Your task to perform on an android device: visit the assistant section in the google photos Image 0: 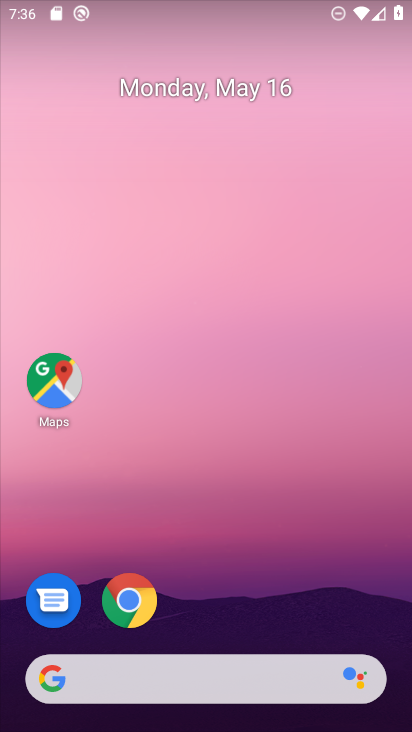
Step 0: drag from (160, 674) to (320, 132)
Your task to perform on an android device: visit the assistant section in the google photos Image 1: 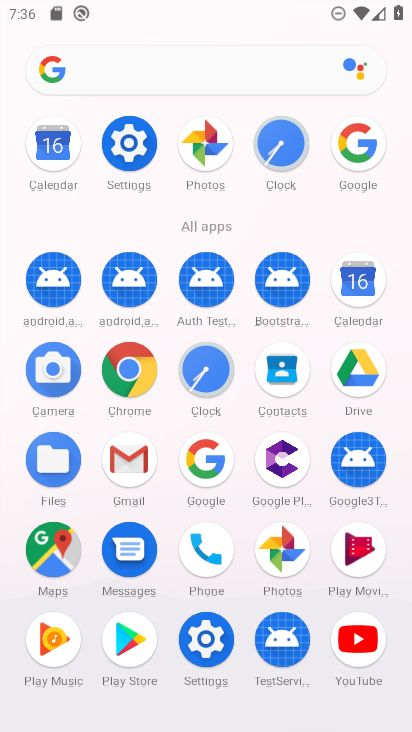
Step 1: click (279, 548)
Your task to perform on an android device: visit the assistant section in the google photos Image 2: 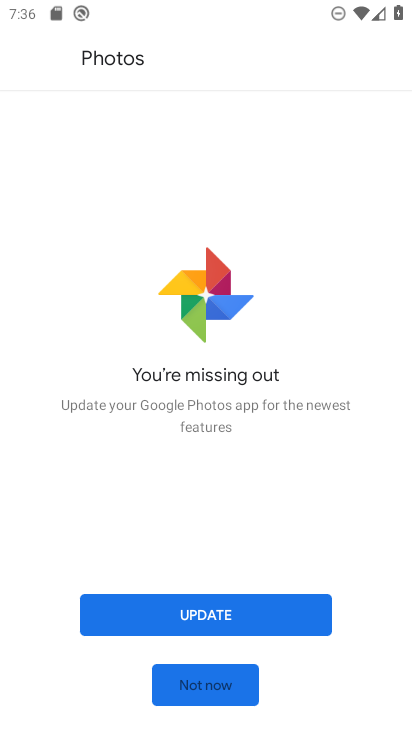
Step 2: click (233, 675)
Your task to perform on an android device: visit the assistant section in the google photos Image 3: 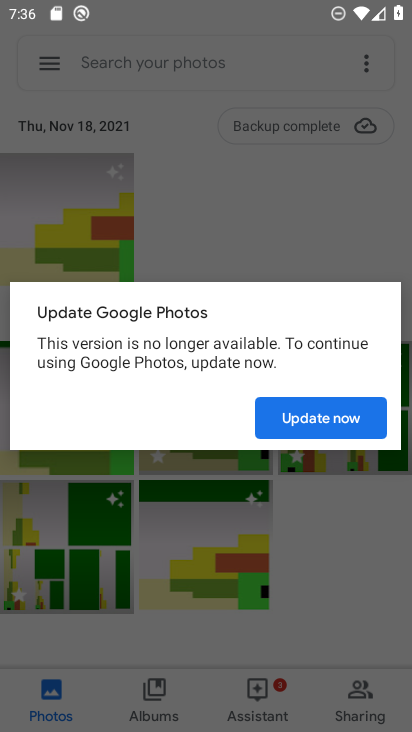
Step 3: click (334, 418)
Your task to perform on an android device: visit the assistant section in the google photos Image 4: 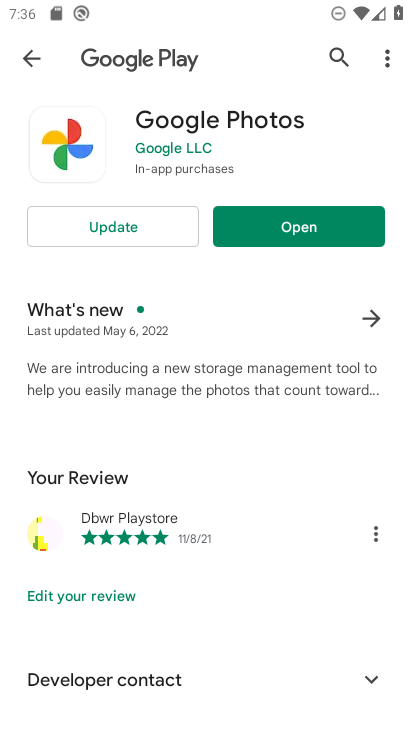
Step 4: click (313, 231)
Your task to perform on an android device: visit the assistant section in the google photos Image 5: 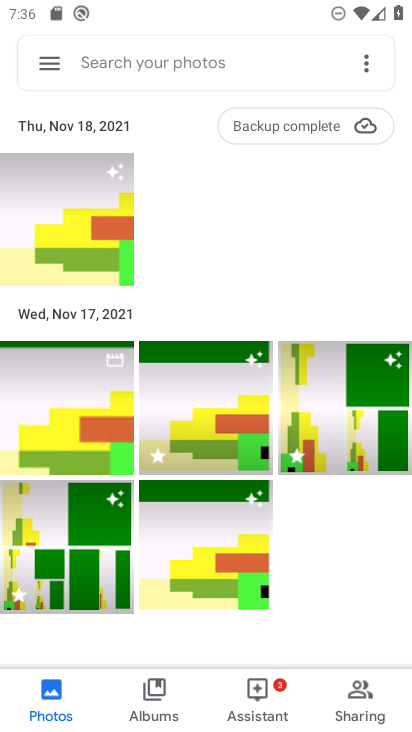
Step 5: click (261, 703)
Your task to perform on an android device: visit the assistant section in the google photos Image 6: 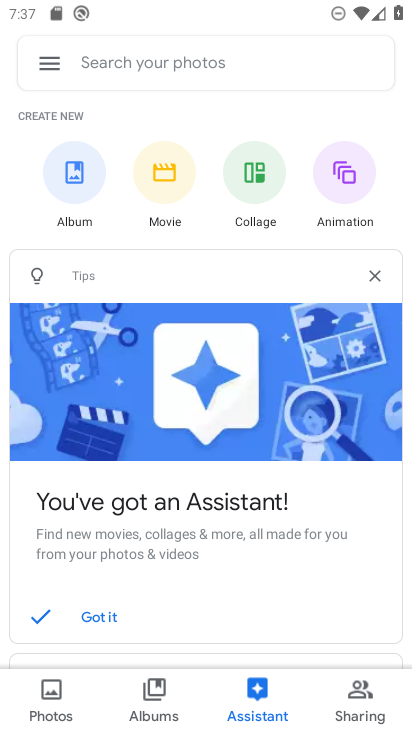
Step 6: task complete